Your task to perform on an android device: Open calendar and show me the third week of next month Image 0: 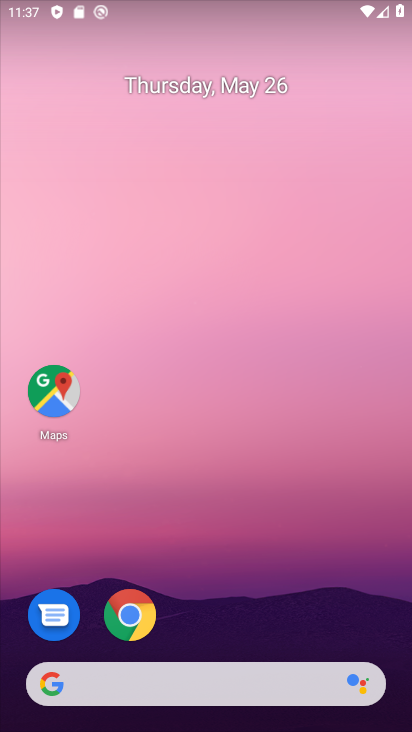
Step 0: press home button
Your task to perform on an android device: Open calendar and show me the third week of next month Image 1: 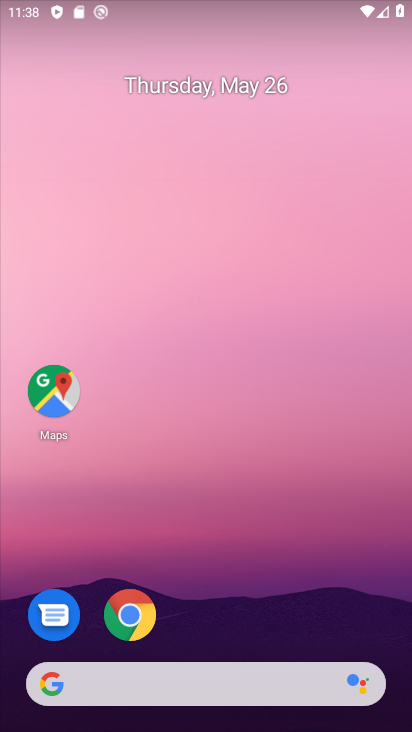
Step 1: drag from (278, 642) to (295, 213)
Your task to perform on an android device: Open calendar and show me the third week of next month Image 2: 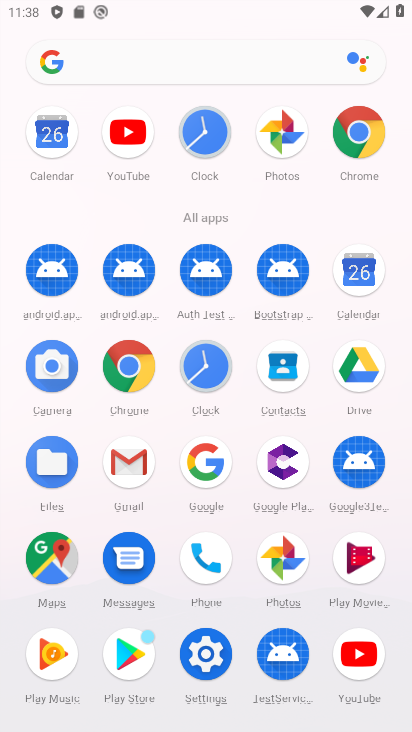
Step 2: click (350, 283)
Your task to perform on an android device: Open calendar and show me the third week of next month Image 3: 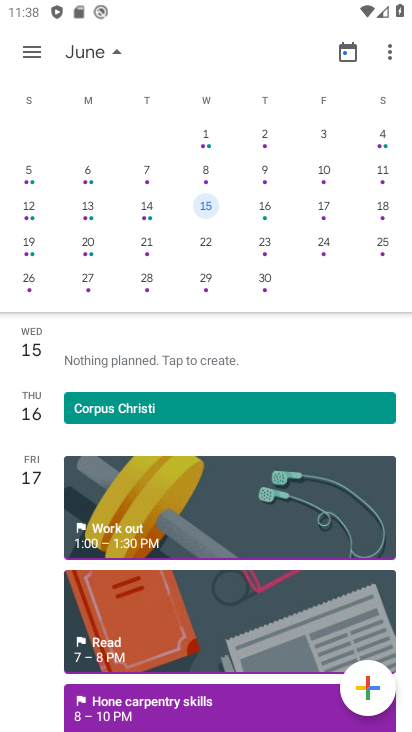
Step 3: task complete